Your task to perform on an android device: Open sound settings Image 0: 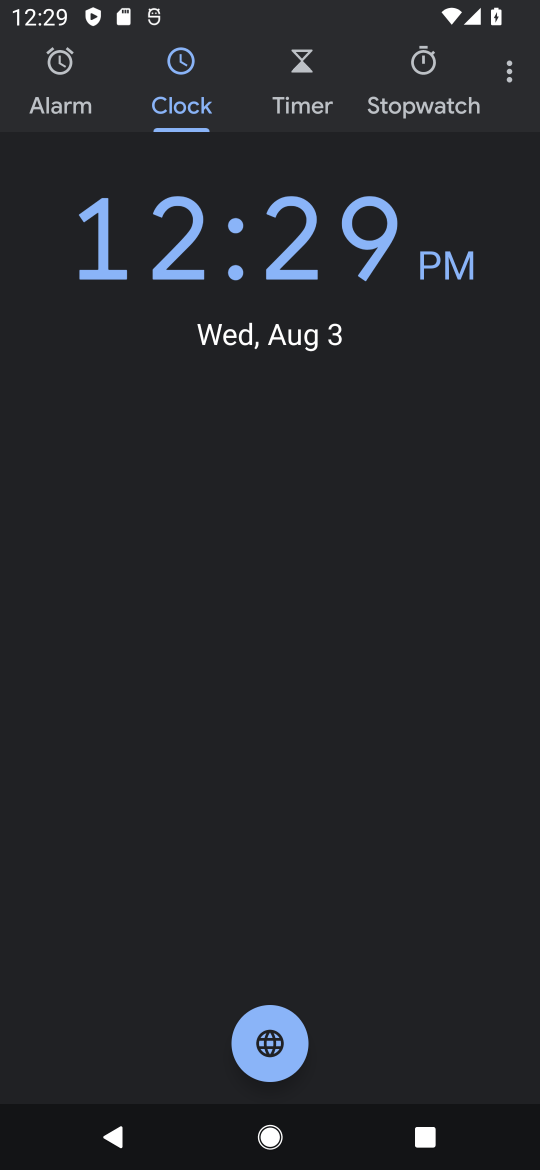
Step 0: press home button
Your task to perform on an android device: Open sound settings Image 1: 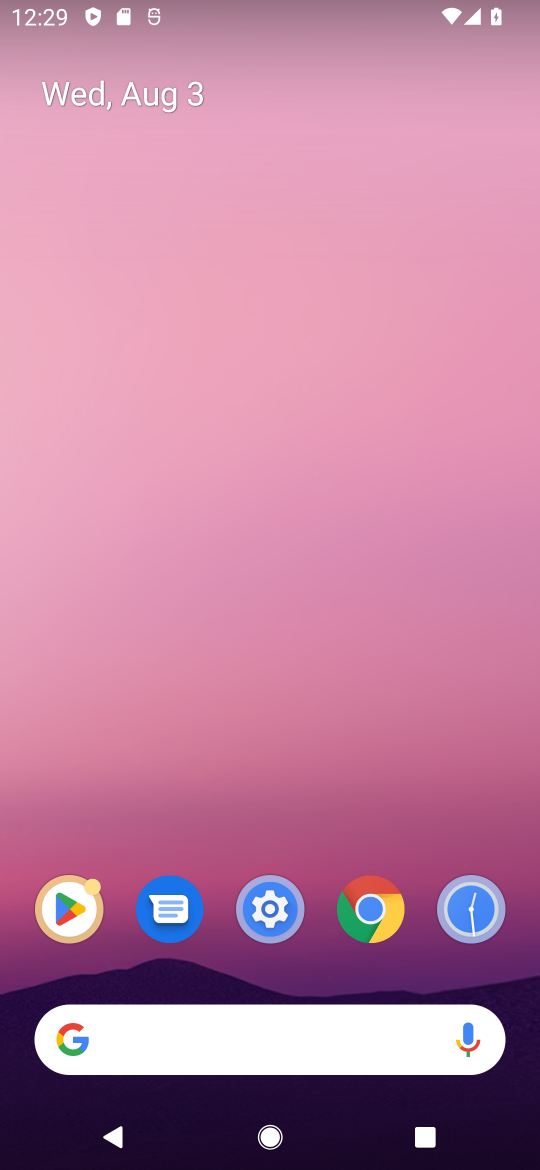
Step 1: click (274, 896)
Your task to perform on an android device: Open sound settings Image 2: 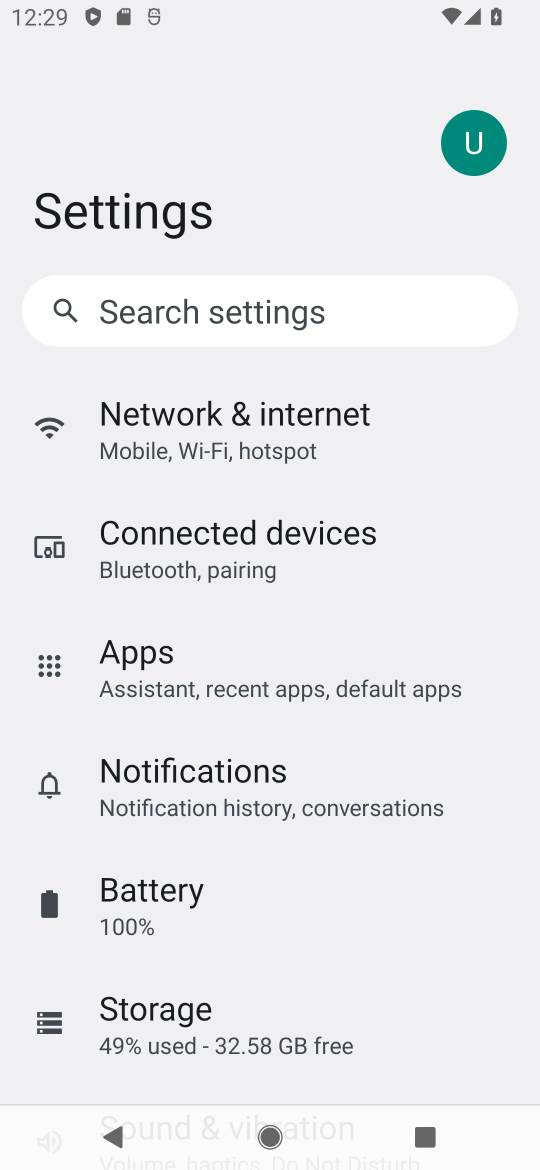
Step 2: drag from (276, 922) to (243, 183)
Your task to perform on an android device: Open sound settings Image 3: 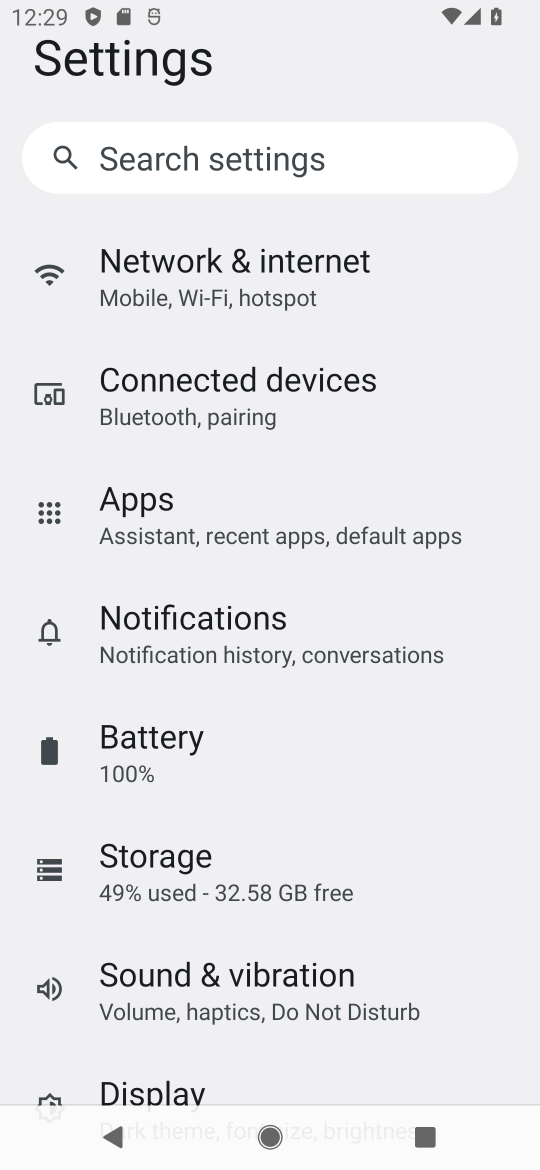
Step 3: click (220, 988)
Your task to perform on an android device: Open sound settings Image 4: 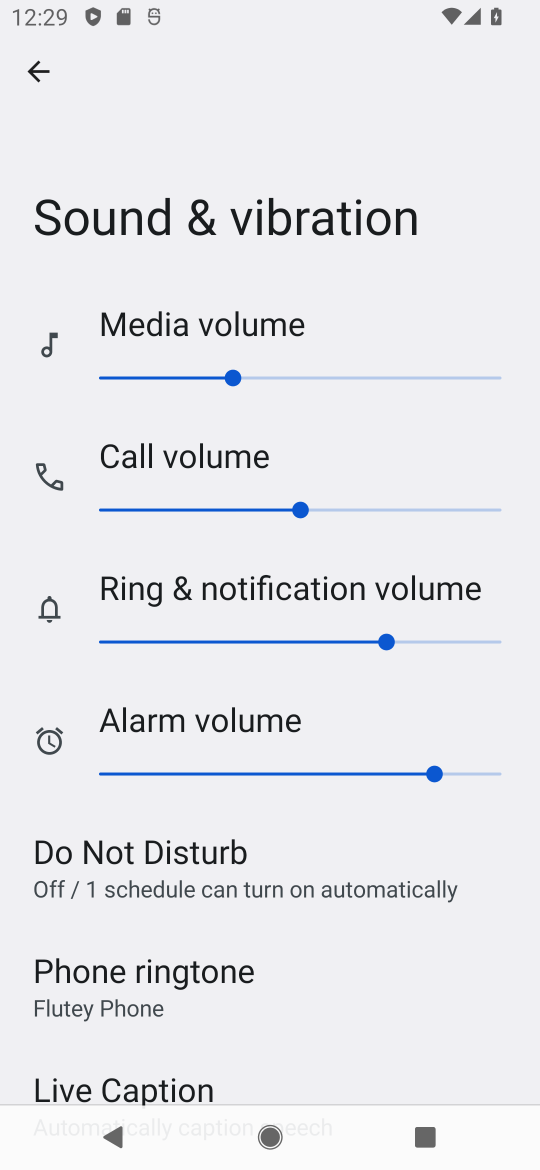
Step 4: task complete